Your task to perform on an android device: check out phone information Image 0: 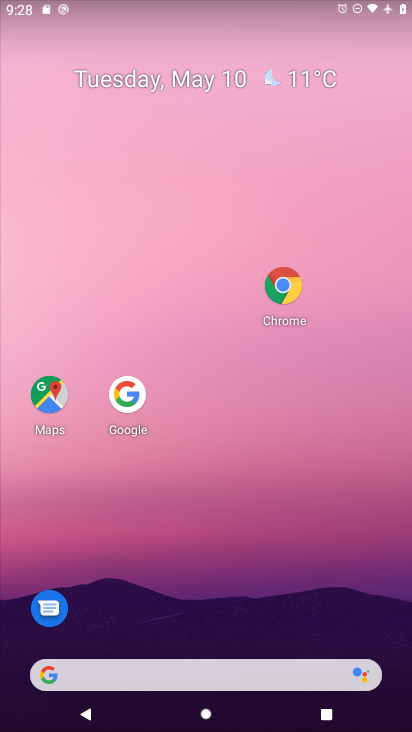
Step 0: drag from (177, 675) to (334, 136)
Your task to perform on an android device: check out phone information Image 1: 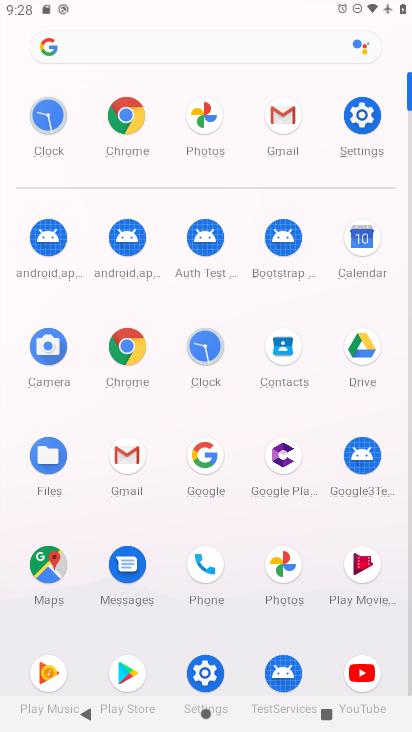
Step 1: click (361, 127)
Your task to perform on an android device: check out phone information Image 2: 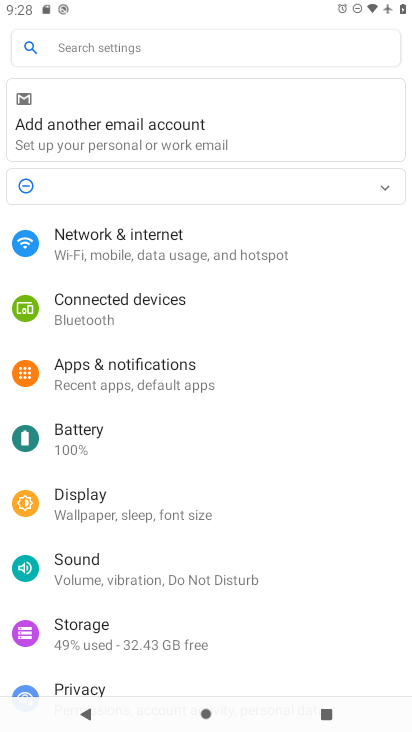
Step 2: drag from (145, 668) to (408, 125)
Your task to perform on an android device: check out phone information Image 3: 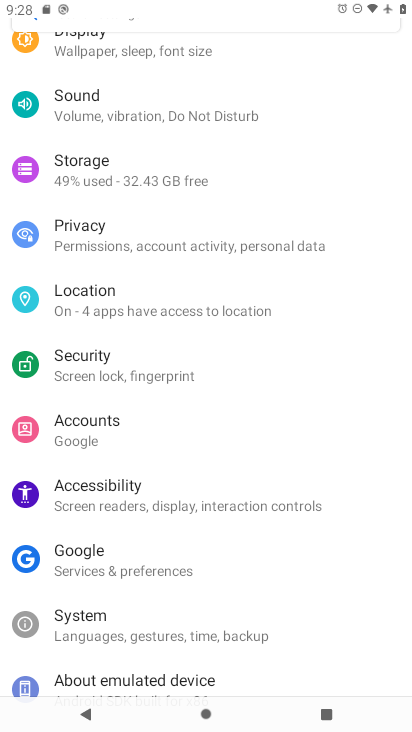
Step 3: drag from (211, 593) to (350, 250)
Your task to perform on an android device: check out phone information Image 4: 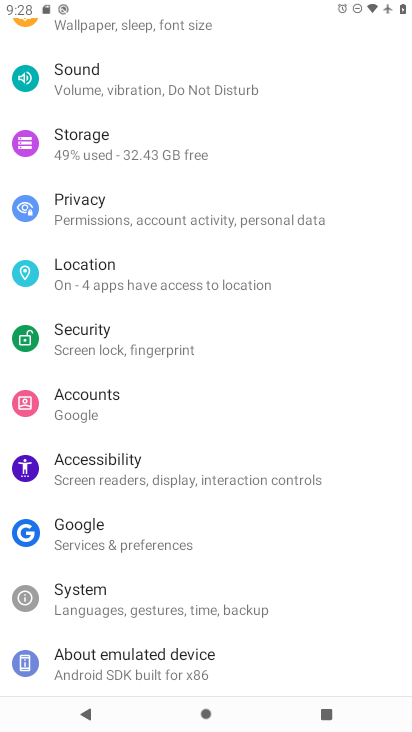
Step 4: click (185, 657)
Your task to perform on an android device: check out phone information Image 5: 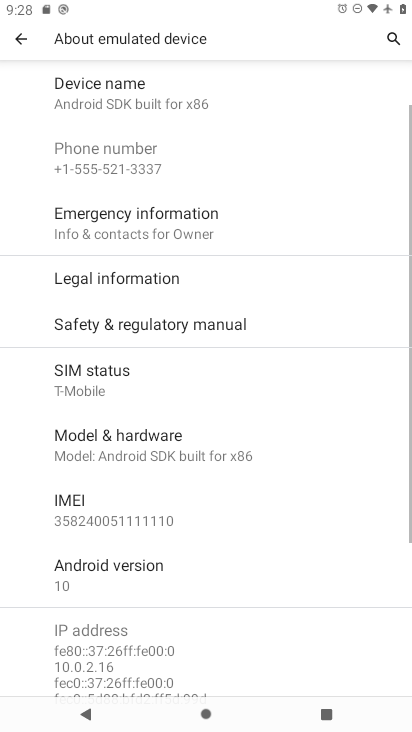
Step 5: task complete